Your task to perform on an android device: turn on wifi Image 0: 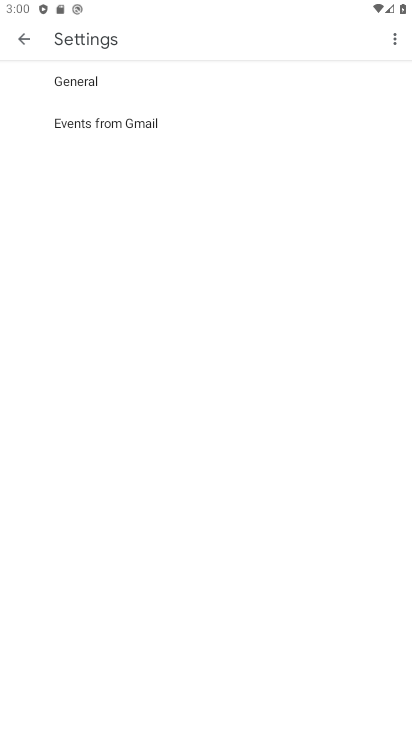
Step 0: press home button
Your task to perform on an android device: turn on wifi Image 1: 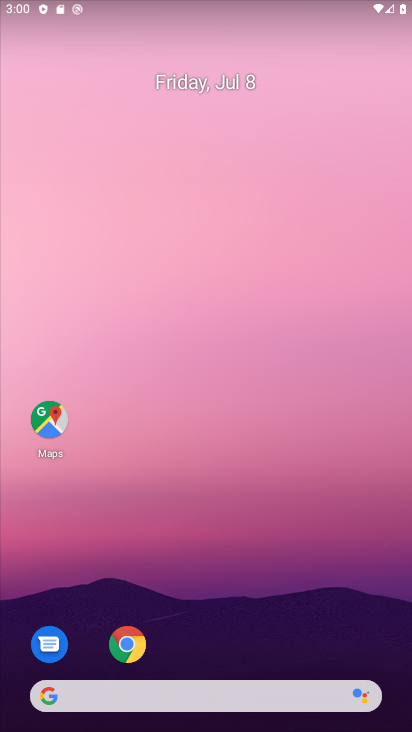
Step 1: drag from (225, 646) to (359, 64)
Your task to perform on an android device: turn on wifi Image 2: 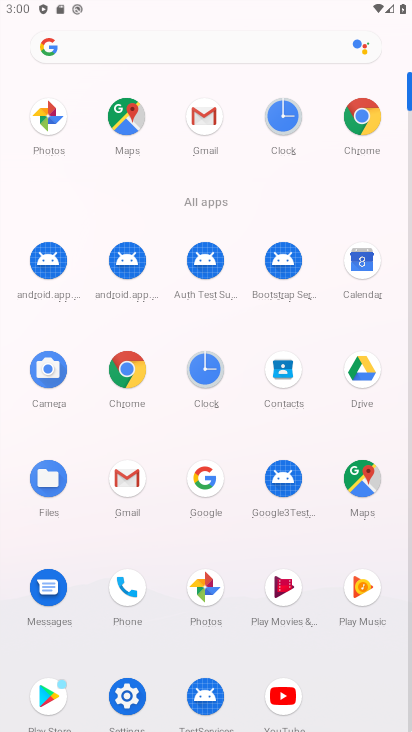
Step 2: click (130, 687)
Your task to perform on an android device: turn on wifi Image 3: 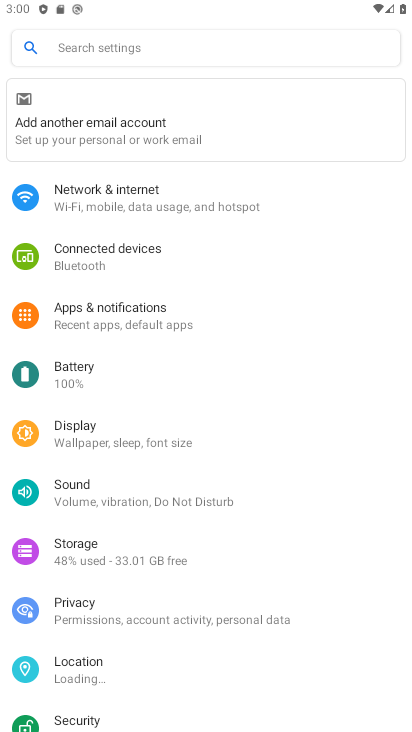
Step 3: click (174, 211)
Your task to perform on an android device: turn on wifi Image 4: 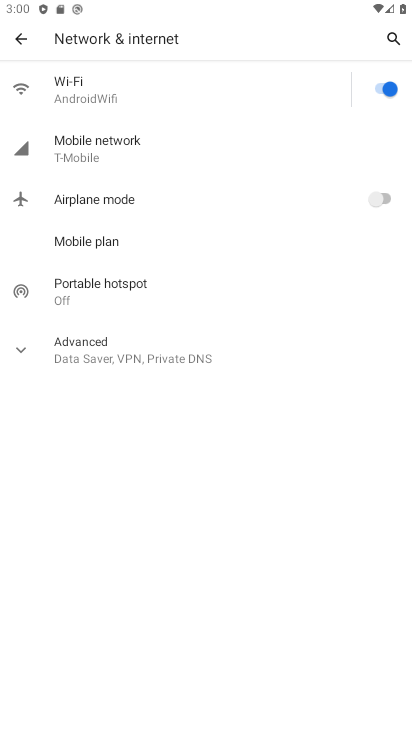
Step 4: task complete